Your task to perform on an android device: see creations saved in the google photos Image 0: 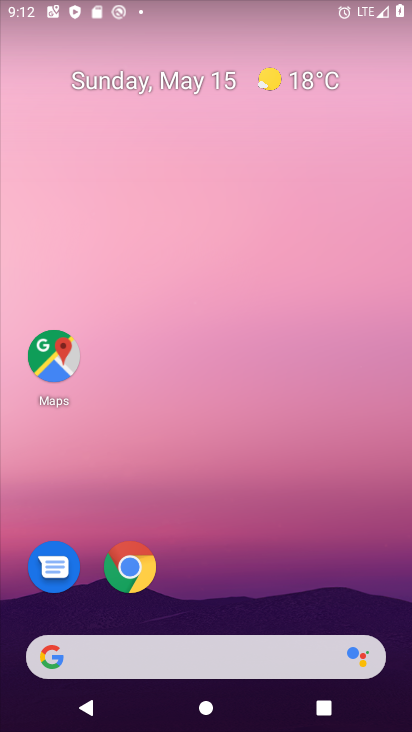
Step 0: drag from (175, 669) to (194, 66)
Your task to perform on an android device: see creations saved in the google photos Image 1: 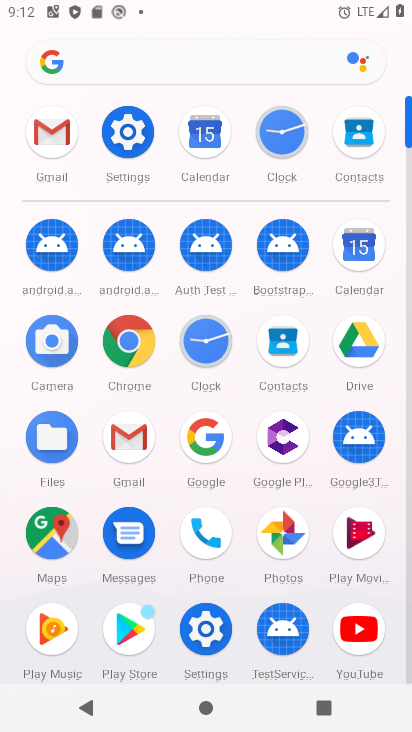
Step 1: click (282, 533)
Your task to perform on an android device: see creations saved in the google photos Image 2: 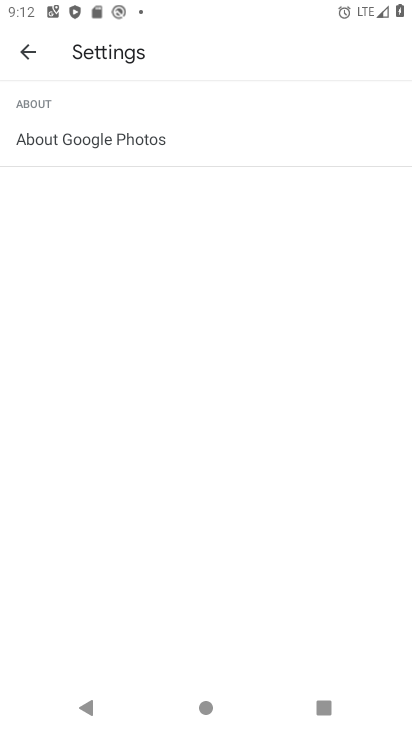
Step 2: click (16, 42)
Your task to perform on an android device: see creations saved in the google photos Image 3: 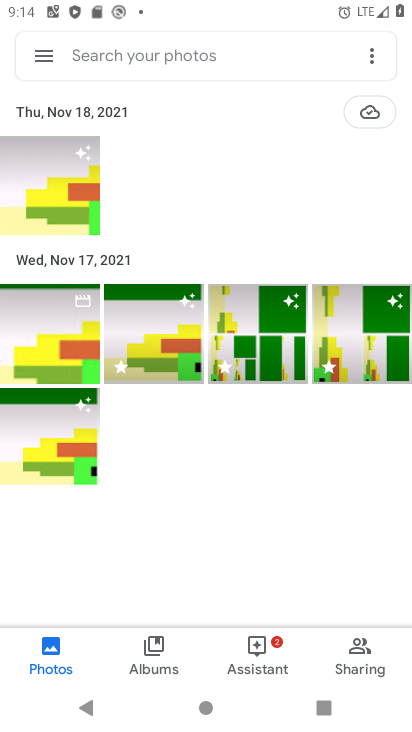
Step 3: click (268, 40)
Your task to perform on an android device: see creations saved in the google photos Image 4: 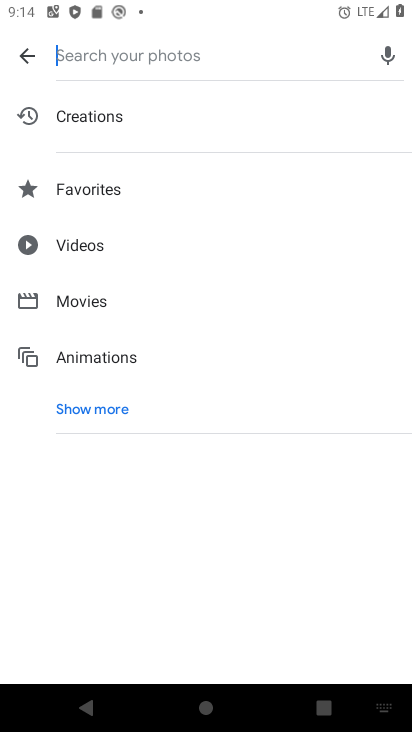
Step 4: click (105, 405)
Your task to perform on an android device: see creations saved in the google photos Image 5: 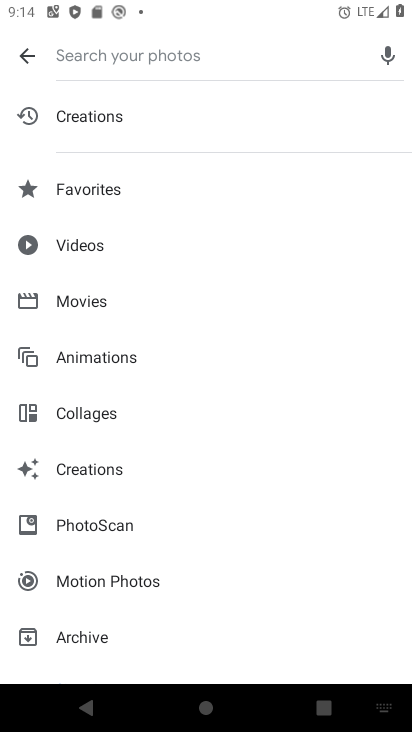
Step 5: click (87, 457)
Your task to perform on an android device: see creations saved in the google photos Image 6: 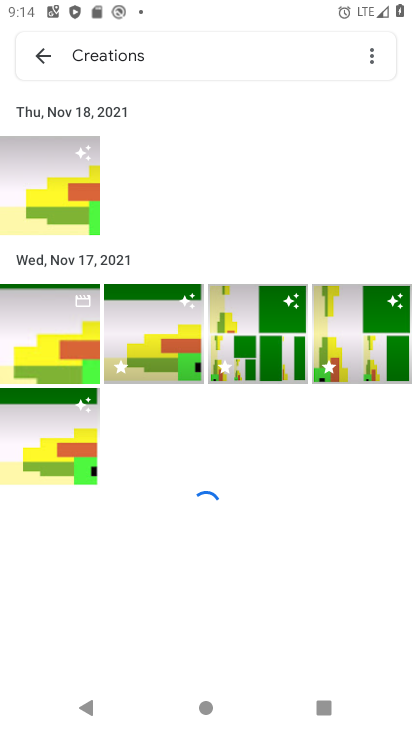
Step 6: click (57, 203)
Your task to perform on an android device: see creations saved in the google photos Image 7: 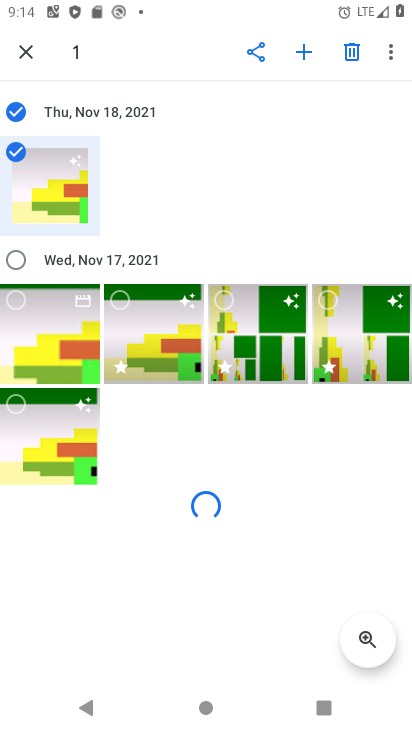
Step 7: task complete